Your task to perform on an android device: Open Chrome and go to the settings page Image 0: 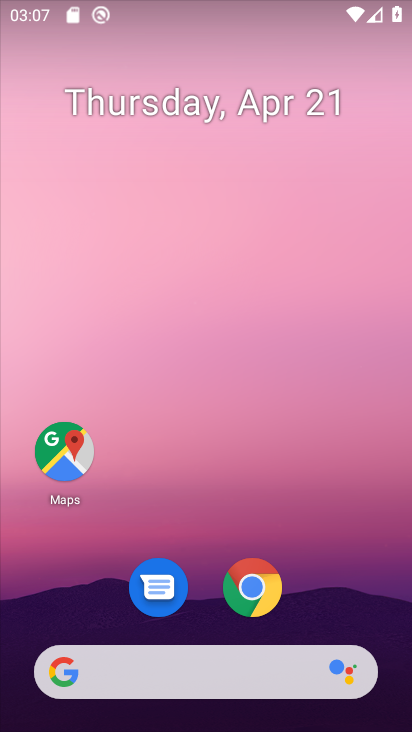
Step 0: drag from (349, 590) to (348, 113)
Your task to perform on an android device: Open Chrome and go to the settings page Image 1: 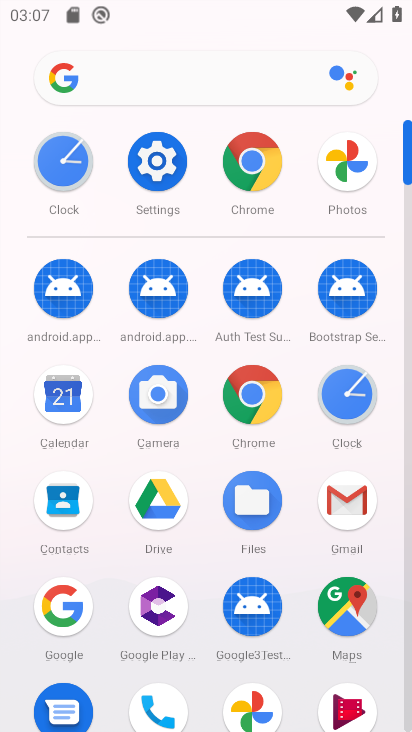
Step 1: click (267, 404)
Your task to perform on an android device: Open Chrome and go to the settings page Image 2: 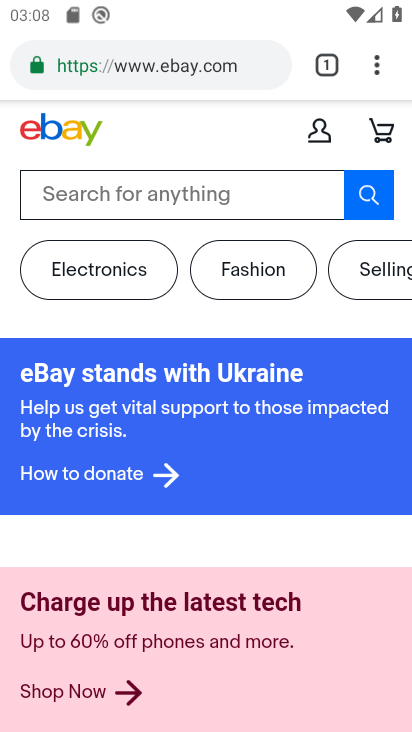
Step 2: click (377, 64)
Your task to perform on an android device: Open Chrome and go to the settings page Image 3: 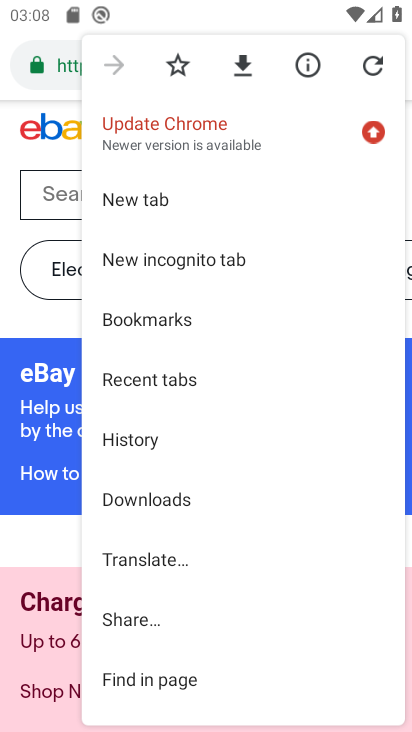
Step 3: drag from (336, 550) to (341, 411)
Your task to perform on an android device: Open Chrome and go to the settings page Image 4: 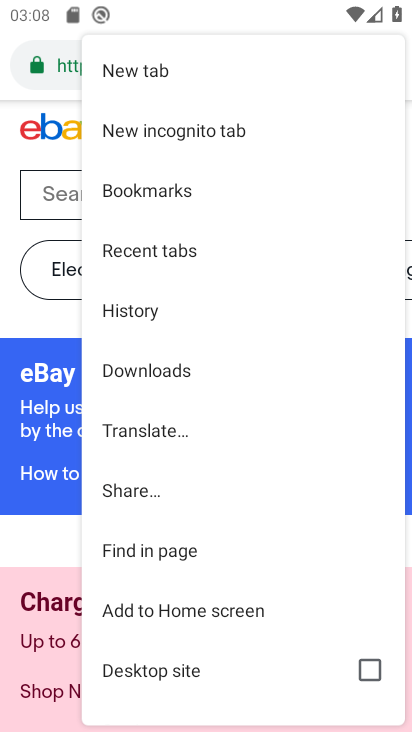
Step 4: drag from (303, 622) to (302, 443)
Your task to perform on an android device: Open Chrome and go to the settings page Image 5: 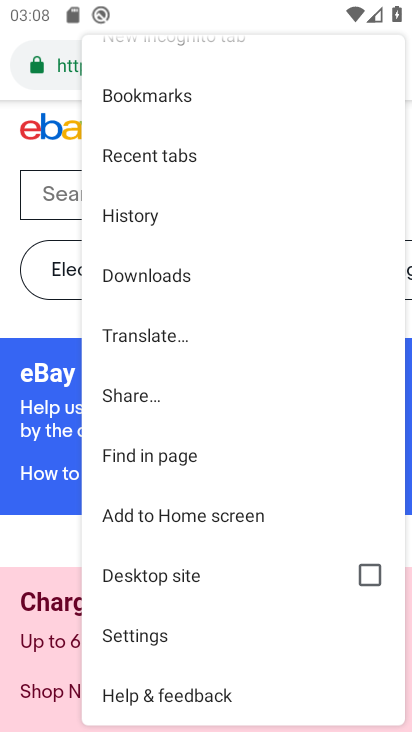
Step 5: click (165, 636)
Your task to perform on an android device: Open Chrome and go to the settings page Image 6: 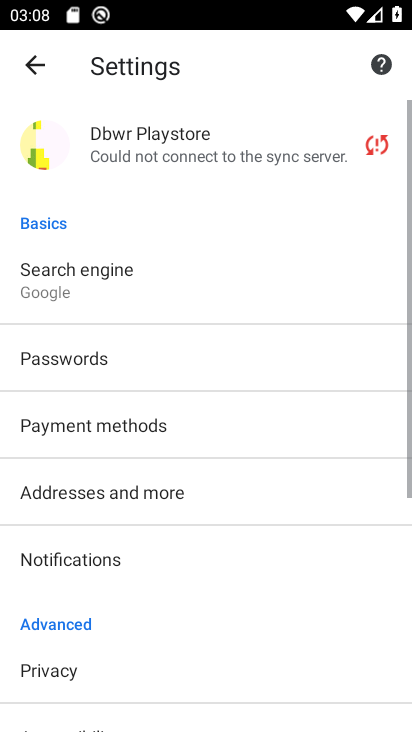
Step 6: task complete